Your task to perform on an android device: Open battery settings Image 0: 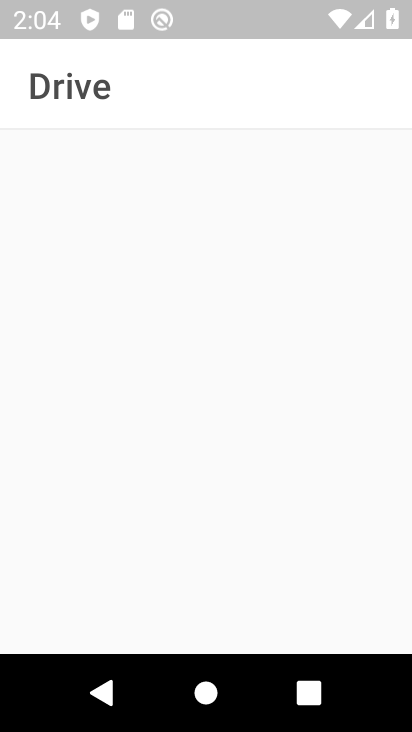
Step 0: press home button
Your task to perform on an android device: Open battery settings Image 1: 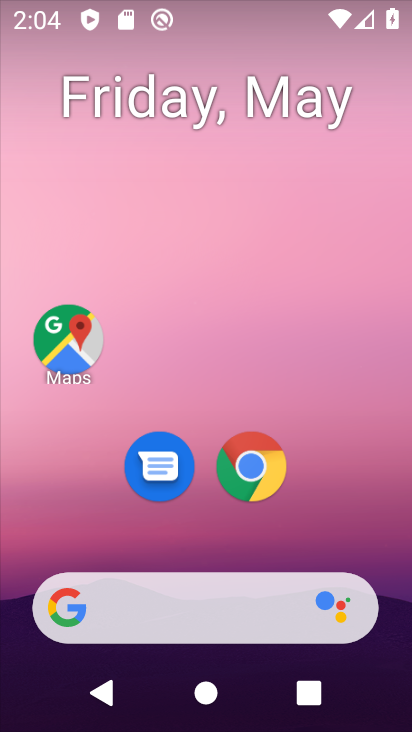
Step 1: drag from (366, 489) to (321, 198)
Your task to perform on an android device: Open battery settings Image 2: 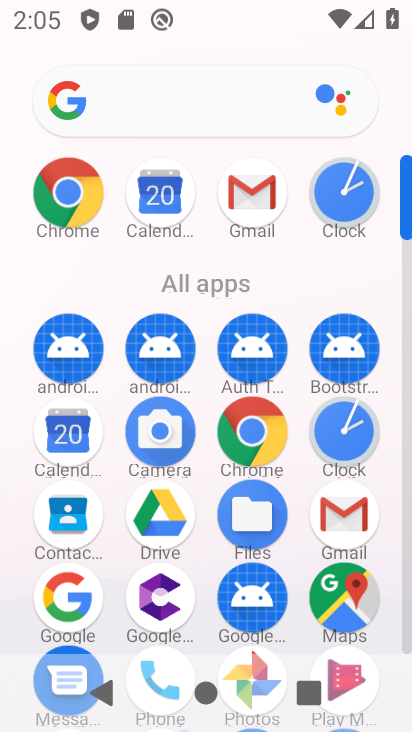
Step 2: click (409, 632)
Your task to perform on an android device: Open battery settings Image 3: 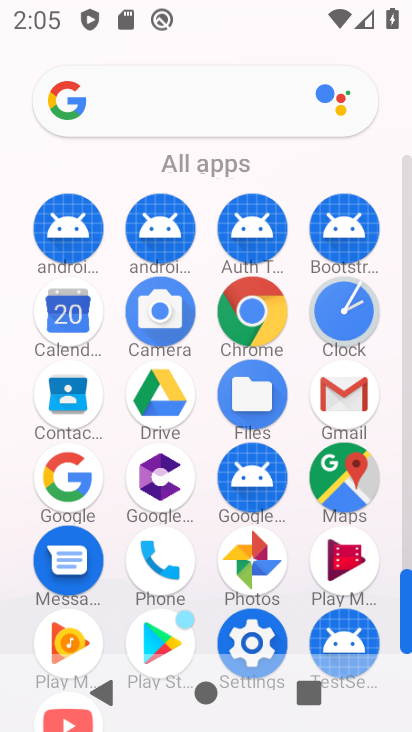
Step 3: click (278, 627)
Your task to perform on an android device: Open battery settings Image 4: 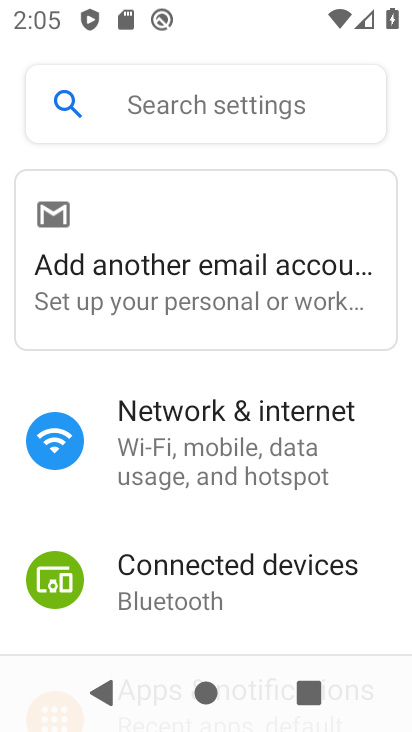
Step 4: drag from (255, 648) to (247, 74)
Your task to perform on an android device: Open battery settings Image 5: 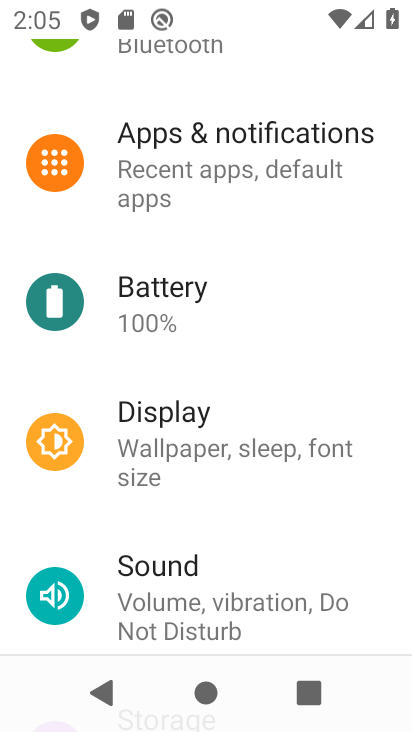
Step 5: click (245, 289)
Your task to perform on an android device: Open battery settings Image 6: 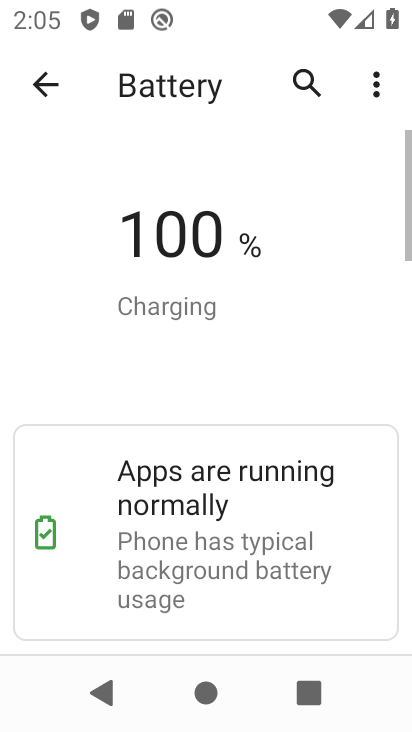
Step 6: task complete